Your task to perform on an android device: refresh tabs in the chrome app Image 0: 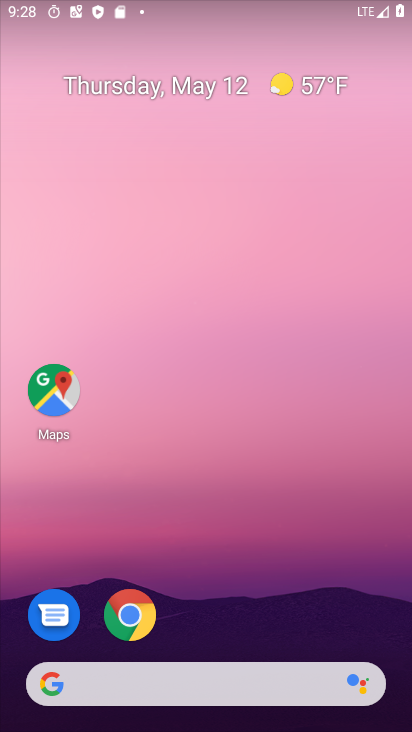
Step 0: drag from (262, 567) to (264, 29)
Your task to perform on an android device: refresh tabs in the chrome app Image 1: 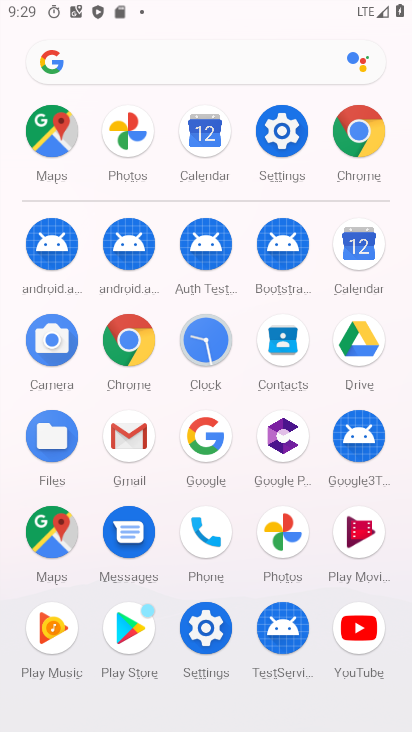
Step 1: drag from (9, 601) to (22, 268)
Your task to perform on an android device: refresh tabs in the chrome app Image 2: 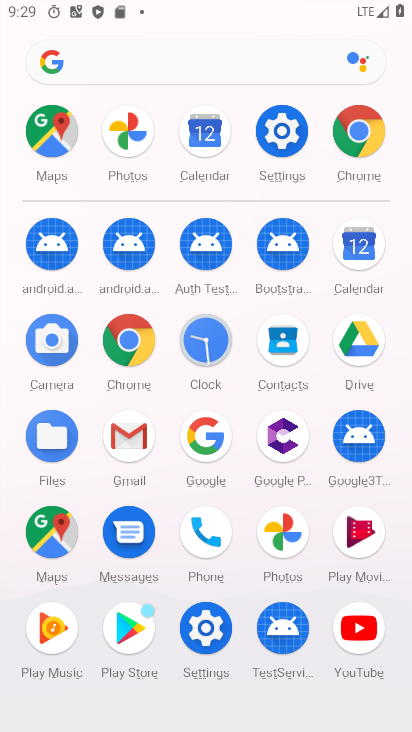
Step 2: click (125, 342)
Your task to perform on an android device: refresh tabs in the chrome app Image 3: 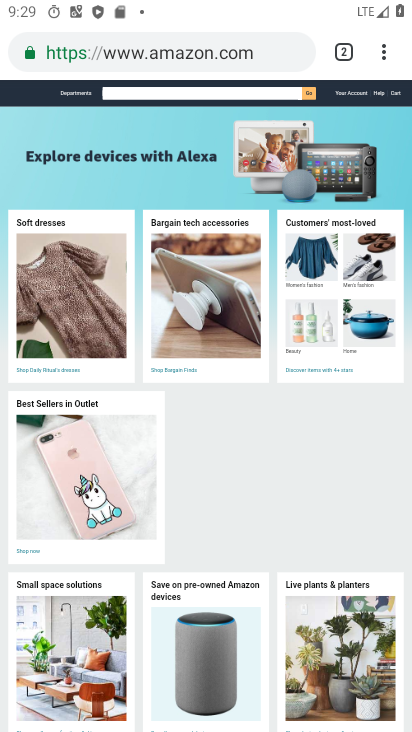
Step 3: click (383, 50)
Your task to perform on an android device: refresh tabs in the chrome app Image 4: 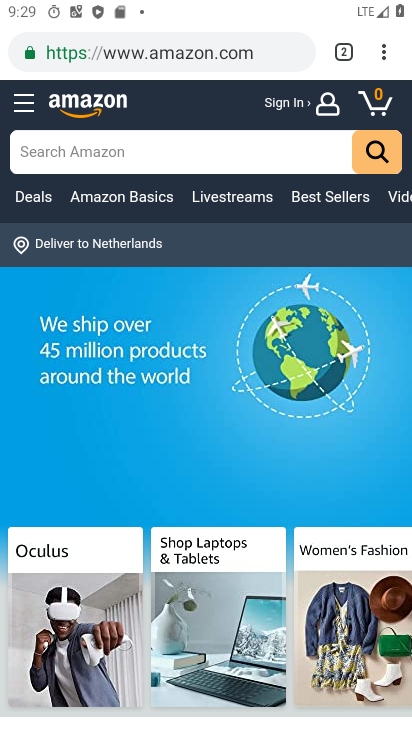
Step 4: task complete